Your task to perform on an android device: choose inbox layout in the gmail app Image 0: 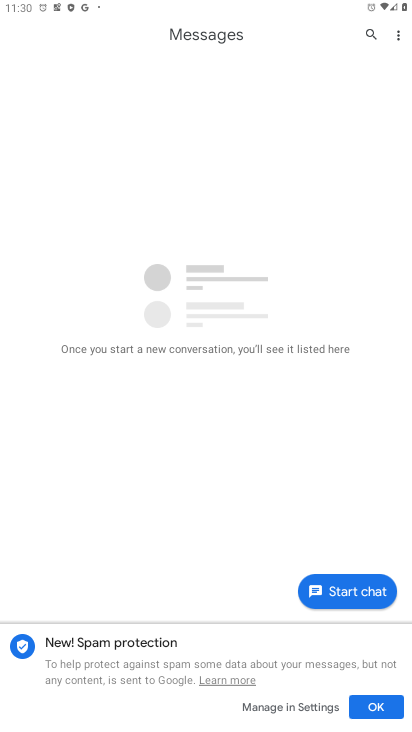
Step 0: press home button
Your task to perform on an android device: choose inbox layout in the gmail app Image 1: 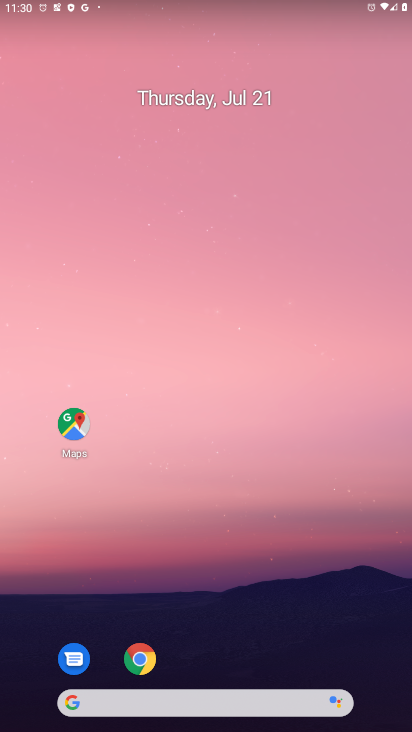
Step 1: drag from (175, 694) to (218, 121)
Your task to perform on an android device: choose inbox layout in the gmail app Image 2: 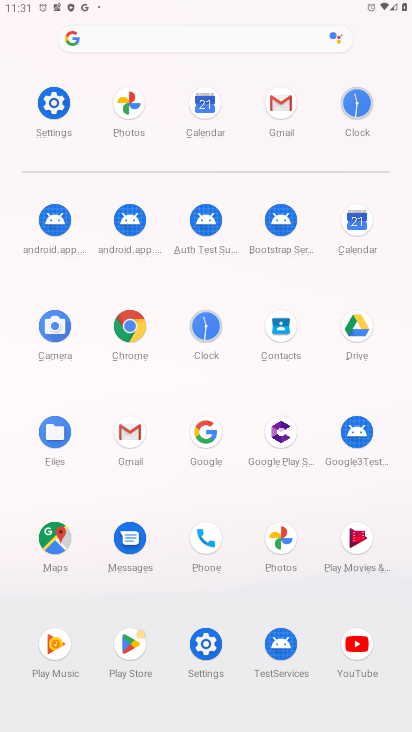
Step 2: click (281, 101)
Your task to perform on an android device: choose inbox layout in the gmail app Image 3: 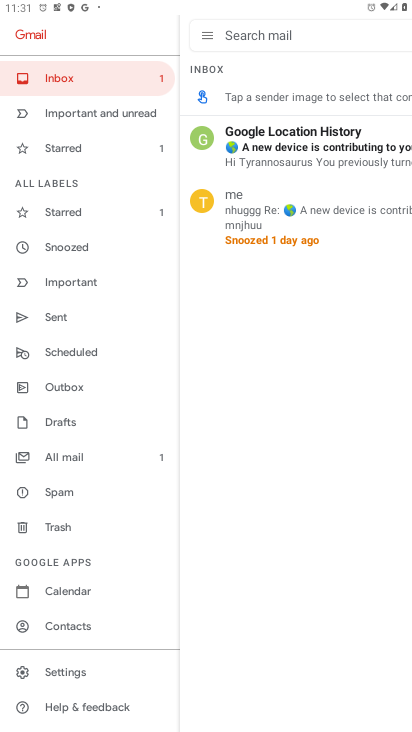
Step 3: click (70, 669)
Your task to perform on an android device: choose inbox layout in the gmail app Image 4: 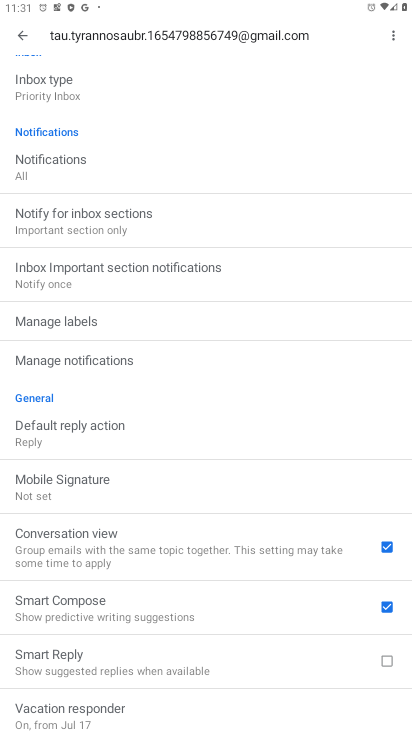
Step 4: click (54, 89)
Your task to perform on an android device: choose inbox layout in the gmail app Image 5: 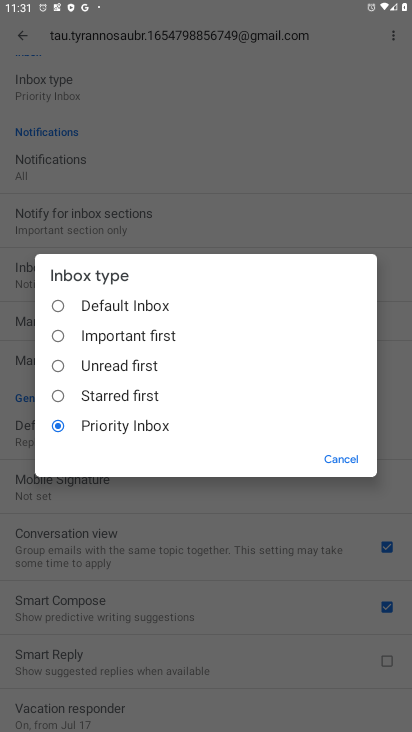
Step 5: click (55, 398)
Your task to perform on an android device: choose inbox layout in the gmail app Image 6: 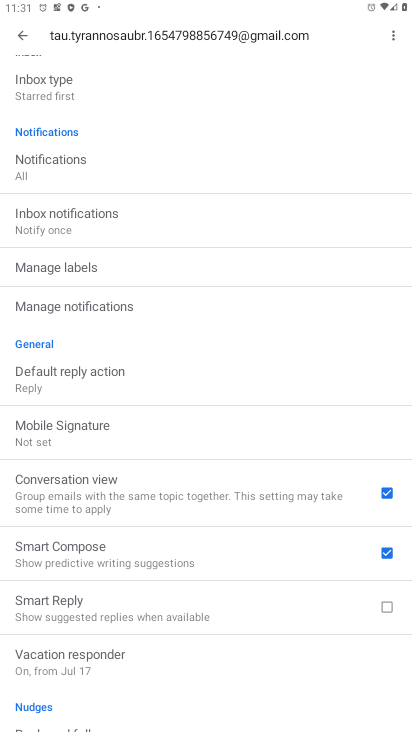
Step 6: task complete